Your task to perform on an android device: empty trash in the gmail app Image 0: 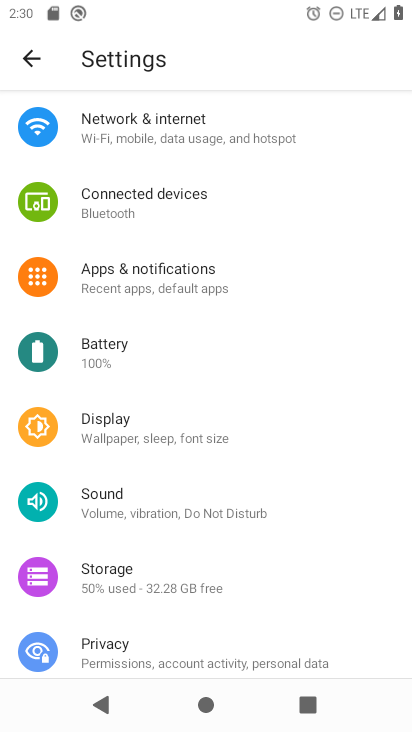
Step 0: press home button
Your task to perform on an android device: empty trash in the gmail app Image 1: 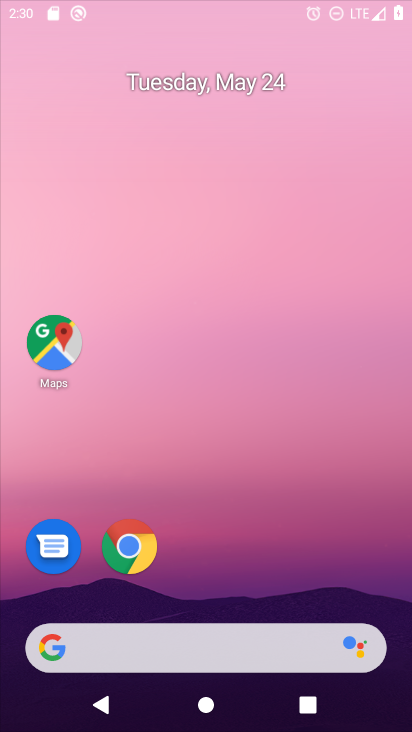
Step 1: drag from (290, 668) to (264, 60)
Your task to perform on an android device: empty trash in the gmail app Image 2: 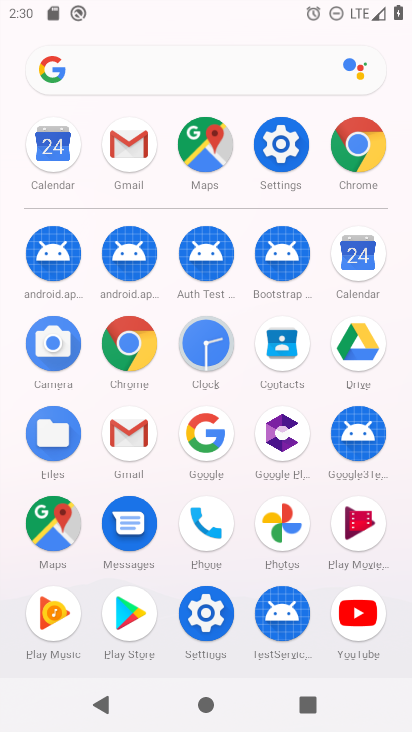
Step 2: click (132, 421)
Your task to perform on an android device: empty trash in the gmail app Image 3: 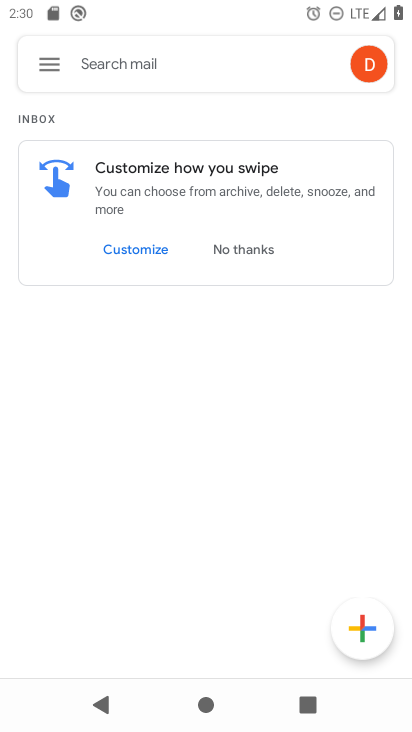
Step 3: click (55, 65)
Your task to perform on an android device: empty trash in the gmail app Image 4: 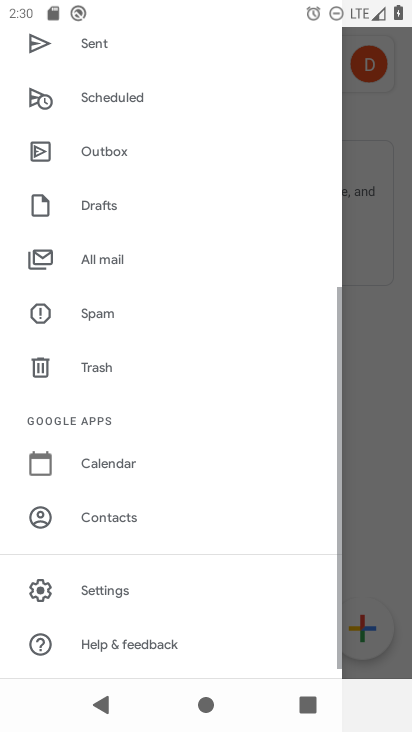
Step 4: click (107, 361)
Your task to perform on an android device: empty trash in the gmail app Image 5: 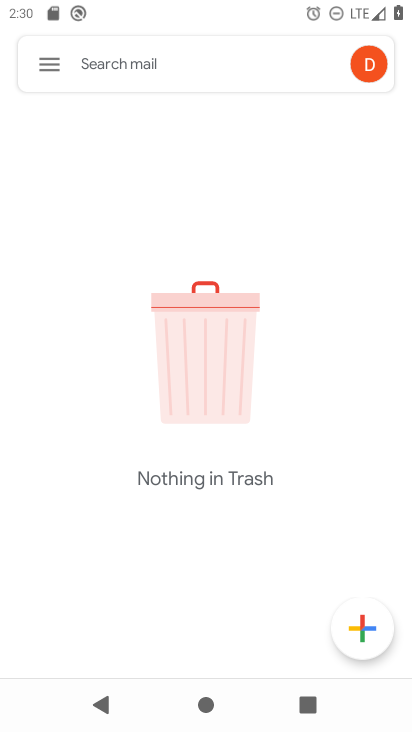
Step 5: task complete